Your task to perform on an android device: Go to Android settings Image 0: 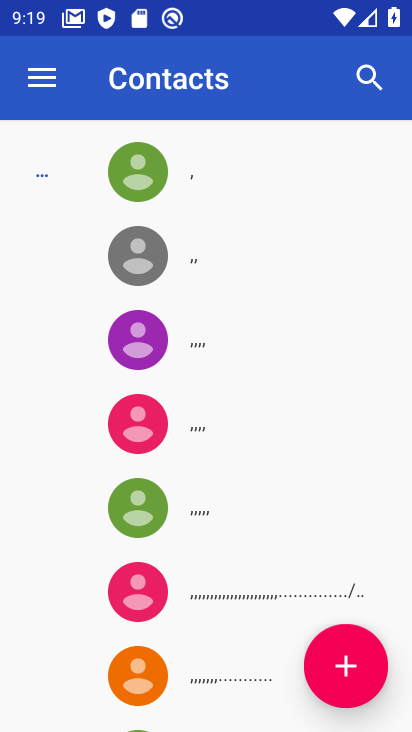
Step 0: press home button
Your task to perform on an android device: Go to Android settings Image 1: 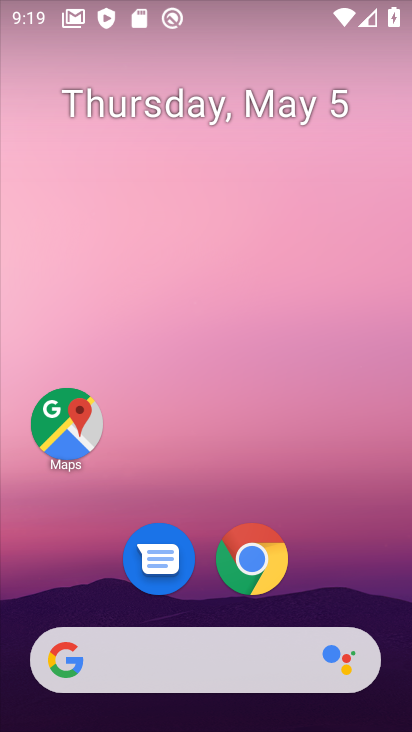
Step 1: drag from (23, 665) to (187, 248)
Your task to perform on an android device: Go to Android settings Image 2: 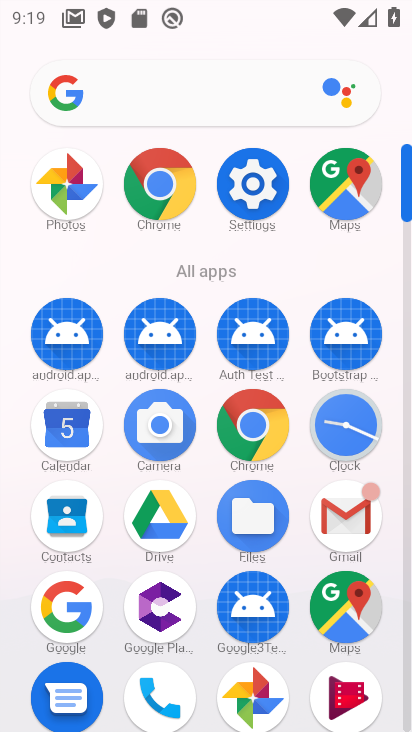
Step 2: click (246, 182)
Your task to perform on an android device: Go to Android settings Image 3: 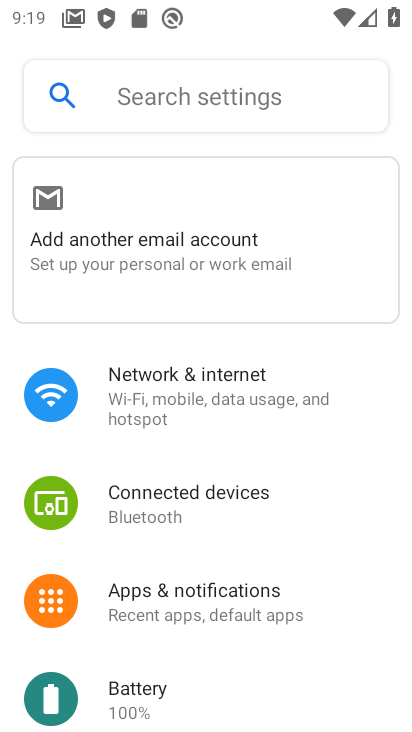
Step 3: drag from (105, 680) to (238, 255)
Your task to perform on an android device: Go to Android settings Image 4: 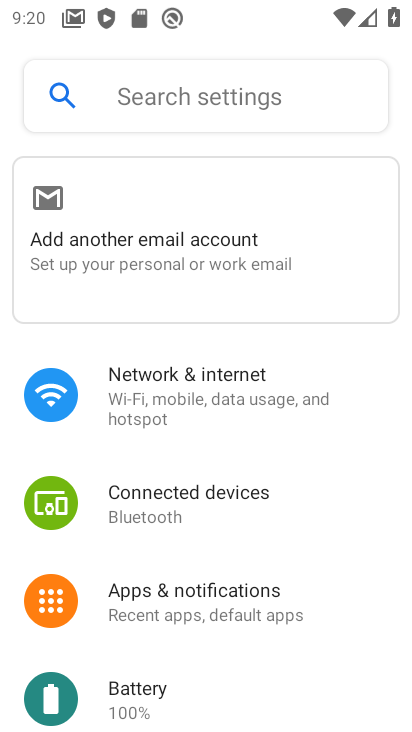
Step 4: drag from (188, 638) to (293, 332)
Your task to perform on an android device: Go to Android settings Image 5: 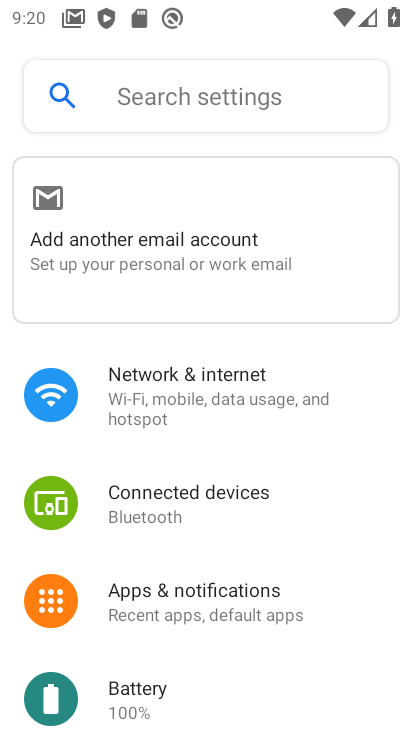
Step 5: drag from (170, 698) to (301, 215)
Your task to perform on an android device: Go to Android settings Image 6: 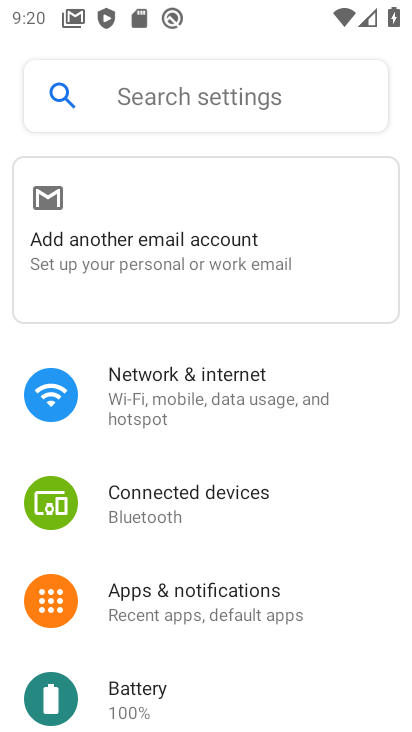
Step 6: drag from (15, 577) to (209, 205)
Your task to perform on an android device: Go to Android settings Image 7: 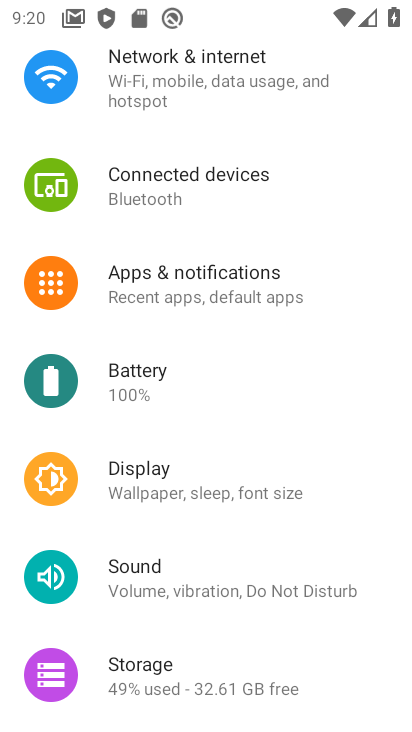
Step 7: drag from (32, 711) to (258, 297)
Your task to perform on an android device: Go to Android settings Image 8: 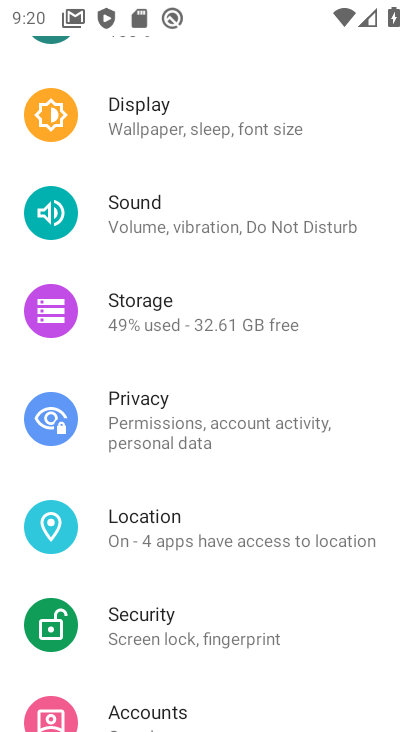
Step 8: drag from (17, 528) to (294, 256)
Your task to perform on an android device: Go to Android settings Image 9: 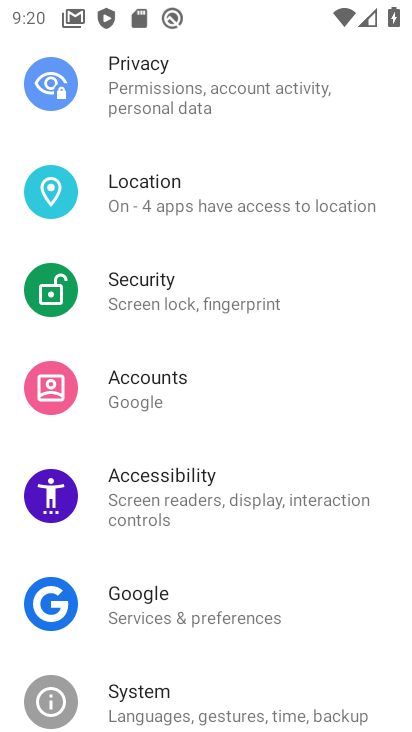
Step 9: click (223, 718)
Your task to perform on an android device: Go to Android settings Image 10: 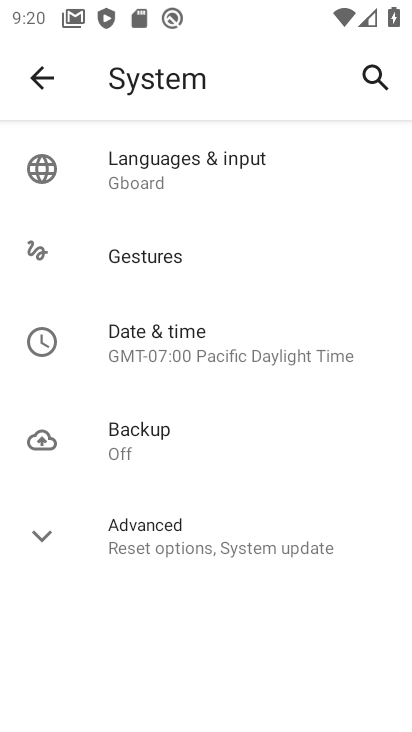
Step 10: click (239, 527)
Your task to perform on an android device: Go to Android settings Image 11: 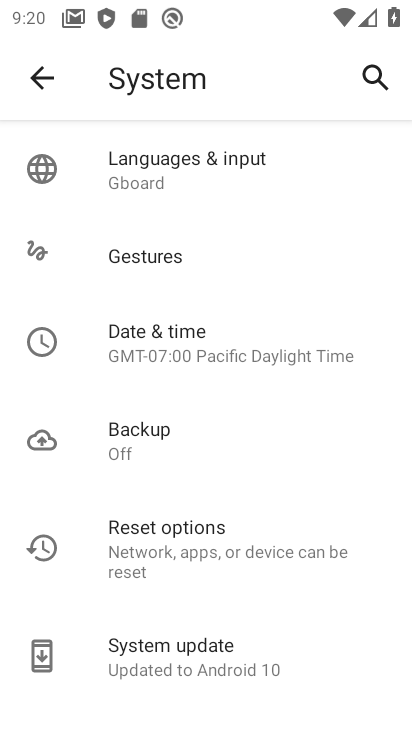
Step 11: task complete